Your task to perform on an android device: Open notification settings Image 0: 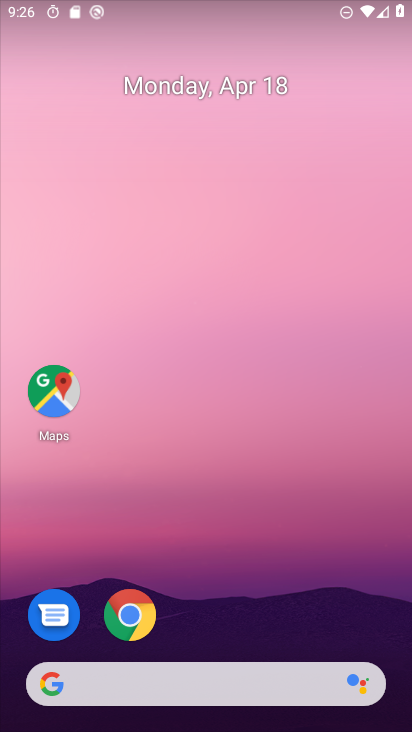
Step 0: drag from (213, 601) to (199, 223)
Your task to perform on an android device: Open notification settings Image 1: 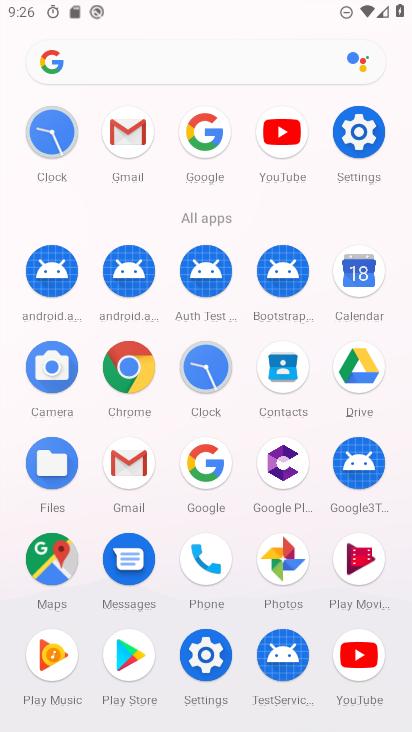
Step 1: click (368, 127)
Your task to perform on an android device: Open notification settings Image 2: 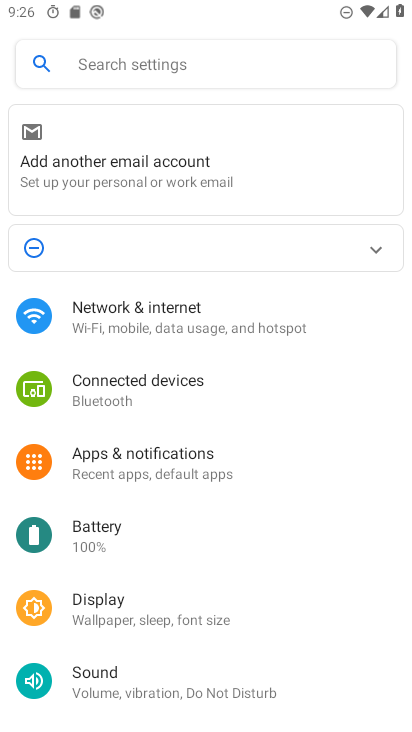
Step 2: click (164, 470)
Your task to perform on an android device: Open notification settings Image 3: 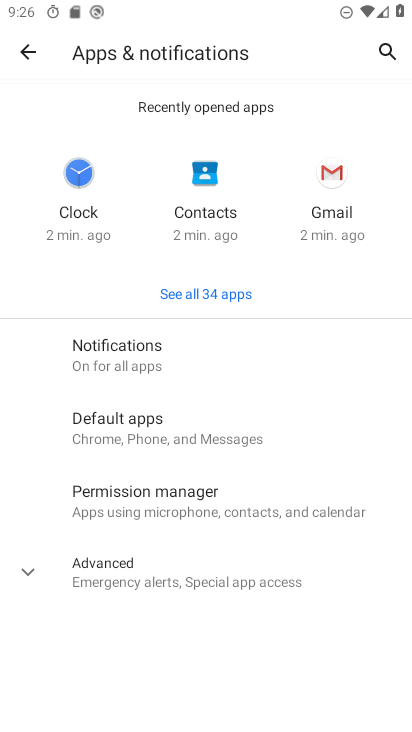
Step 3: click (122, 360)
Your task to perform on an android device: Open notification settings Image 4: 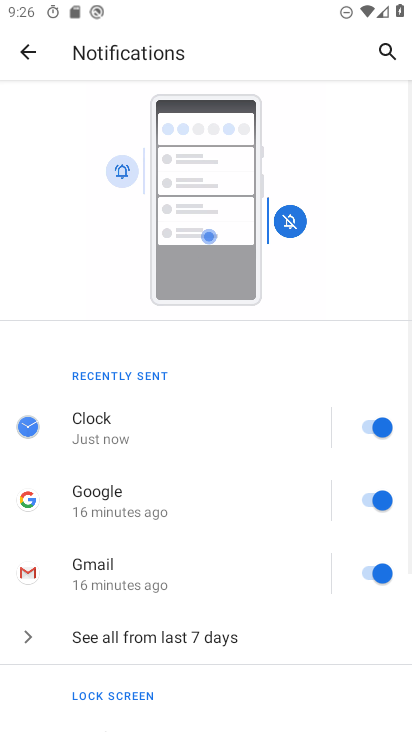
Step 4: drag from (134, 647) to (79, 326)
Your task to perform on an android device: Open notification settings Image 5: 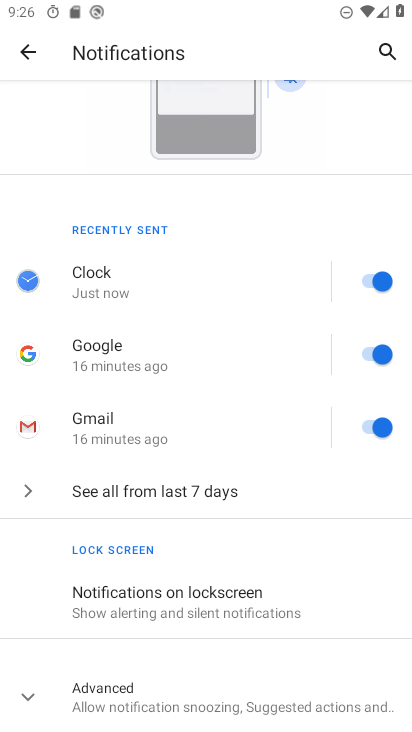
Step 5: click (163, 695)
Your task to perform on an android device: Open notification settings Image 6: 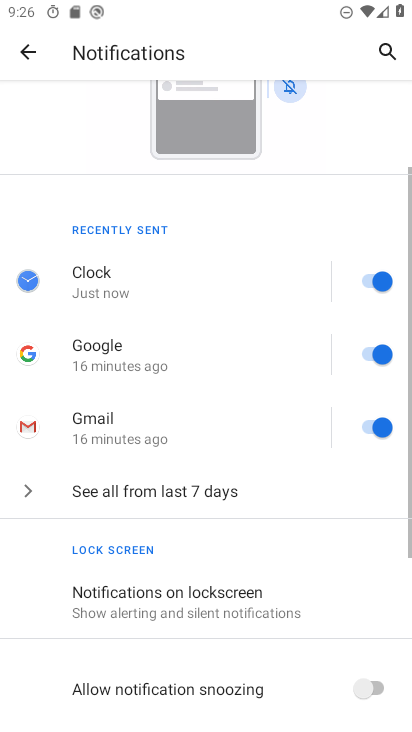
Step 6: task complete